Your task to perform on an android device: When is my next meeting? Image 0: 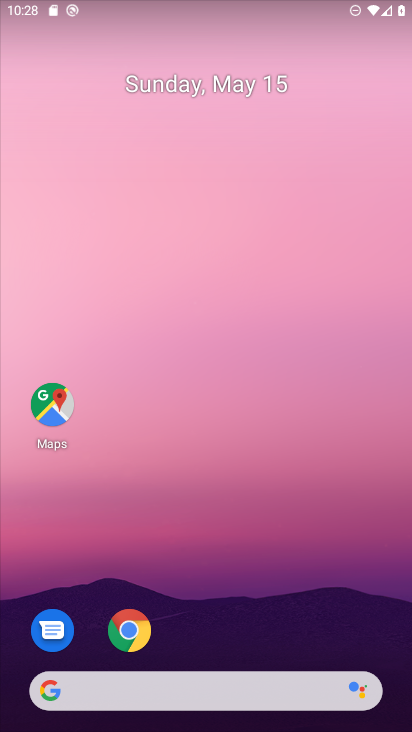
Step 0: drag from (262, 506) to (291, 95)
Your task to perform on an android device: When is my next meeting? Image 1: 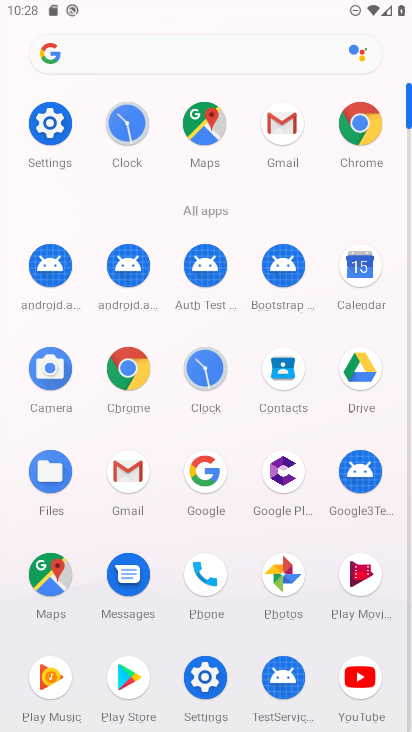
Step 1: press back button
Your task to perform on an android device: When is my next meeting? Image 2: 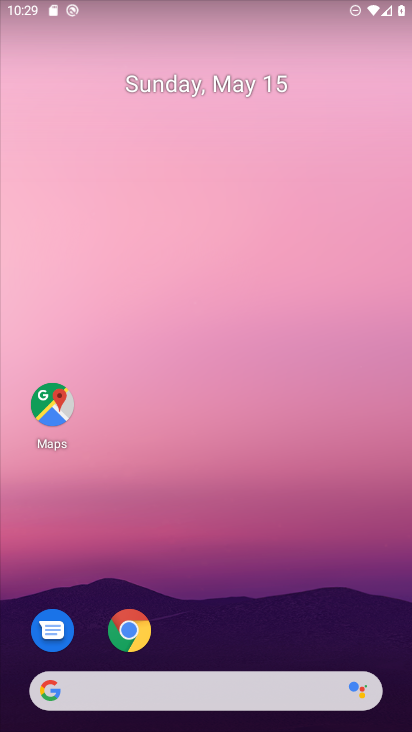
Step 2: drag from (312, 628) to (383, 90)
Your task to perform on an android device: When is my next meeting? Image 3: 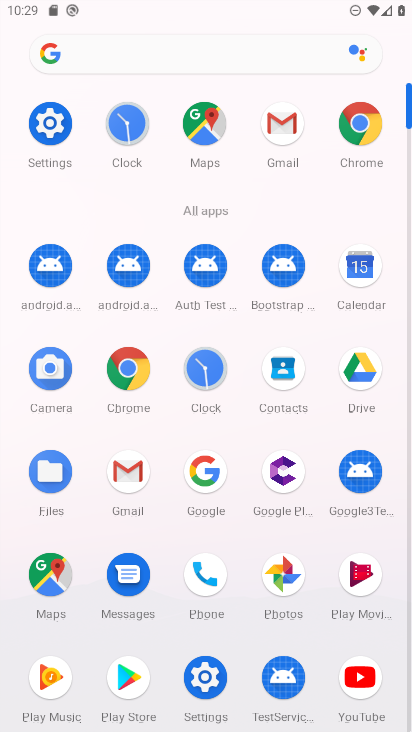
Step 3: click (356, 279)
Your task to perform on an android device: When is my next meeting? Image 4: 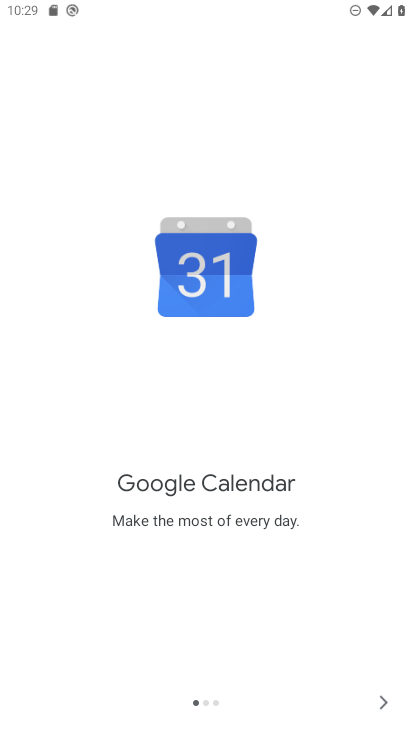
Step 4: click (384, 696)
Your task to perform on an android device: When is my next meeting? Image 5: 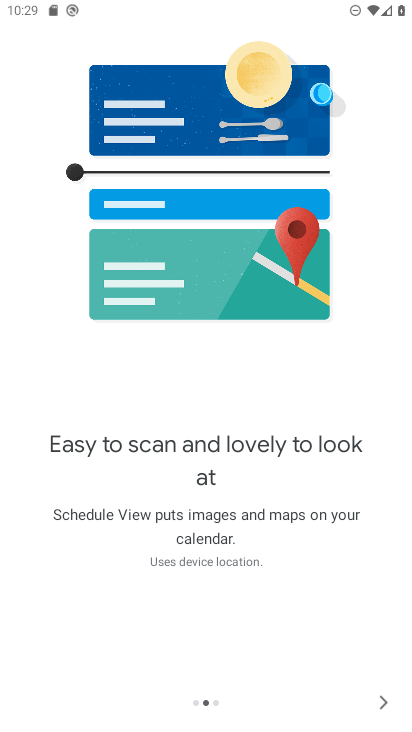
Step 5: click (381, 695)
Your task to perform on an android device: When is my next meeting? Image 6: 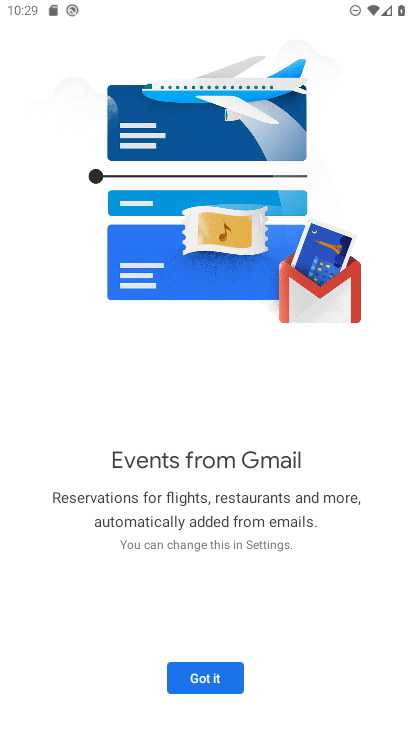
Step 6: click (178, 685)
Your task to perform on an android device: When is my next meeting? Image 7: 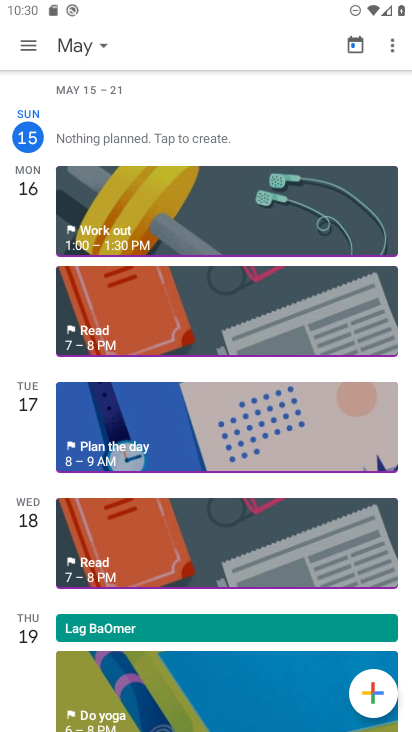
Step 7: press home button
Your task to perform on an android device: When is my next meeting? Image 8: 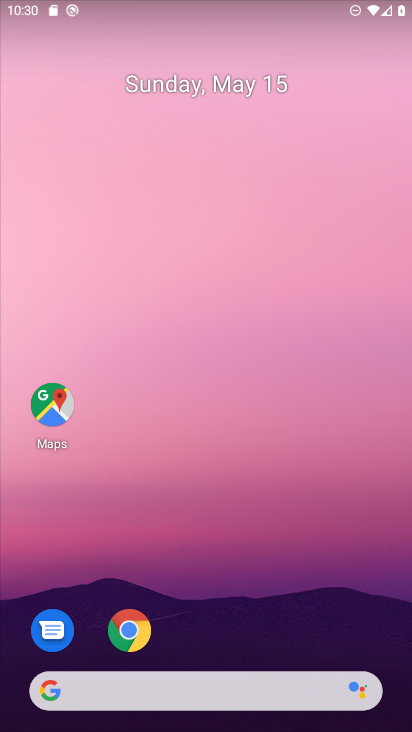
Step 8: drag from (193, 553) to (261, 86)
Your task to perform on an android device: When is my next meeting? Image 9: 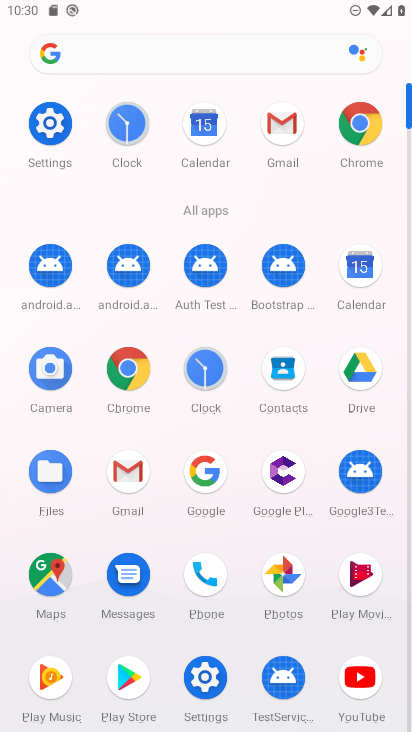
Step 9: click (347, 268)
Your task to perform on an android device: When is my next meeting? Image 10: 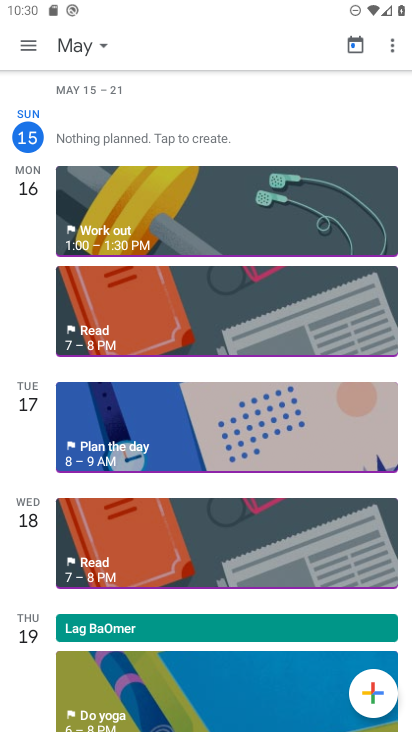
Step 10: task complete